Your task to perform on an android device: Open ESPN.com Image 0: 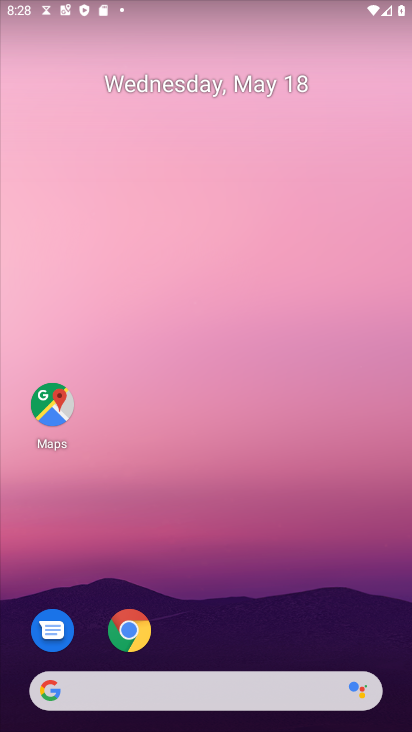
Step 0: press home button
Your task to perform on an android device: Open ESPN.com Image 1: 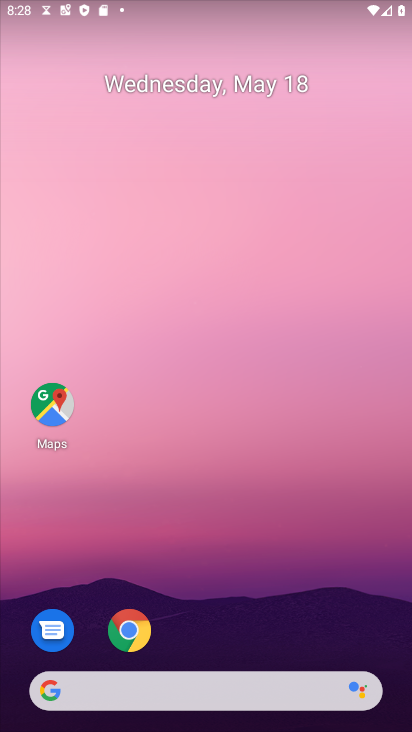
Step 1: click (123, 630)
Your task to perform on an android device: Open ESPN.com Image 2: 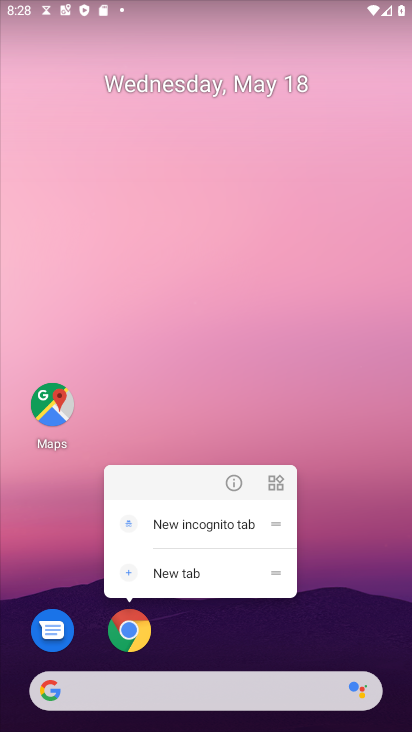
Step 2: click (137, 635)
Your task to perform on an android device: Open ESPN.com Image 3: 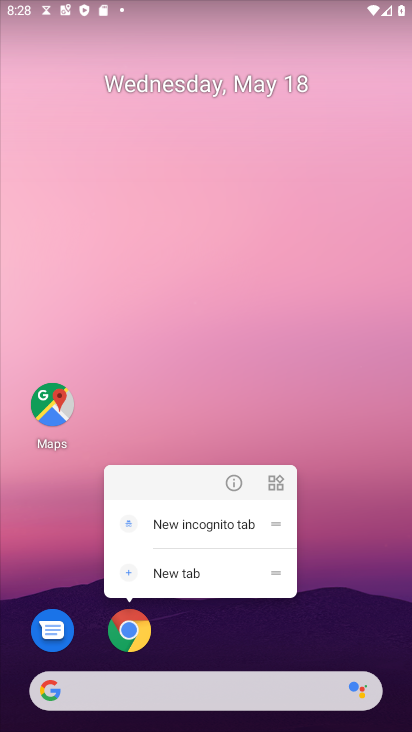
Step 3: click (132, 638)
Your task to perform on an android device: Open ESPN.com Image 4: 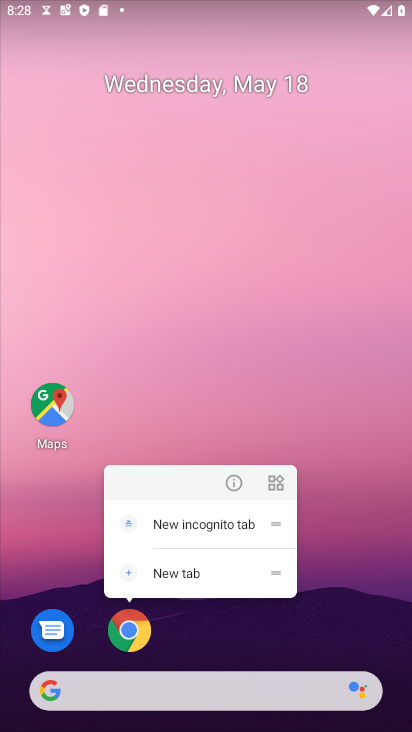
Step 4: click (132, 633)
Your task to perform on an android device: Open ESPN.com Image 5: 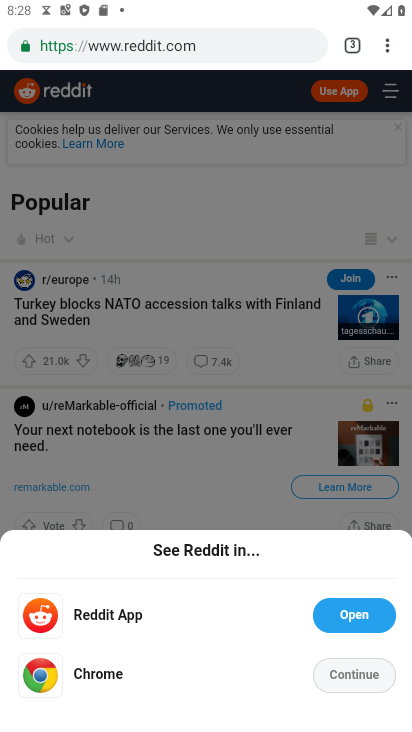
Step 5: drag from (389, 52) to (310, 91)
Your task to perform on an android device: Open ESPN.com Image 6: 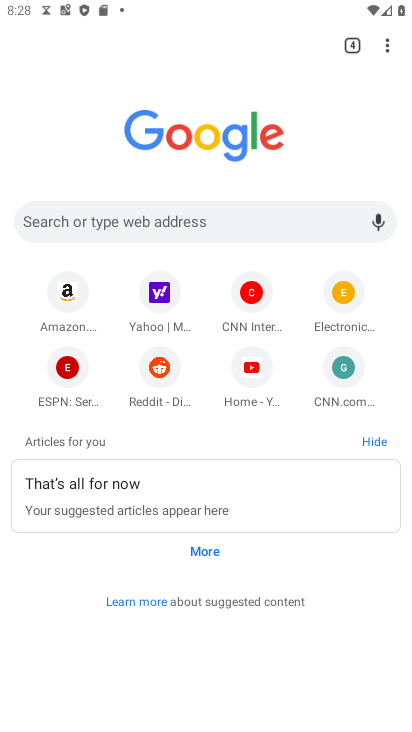
Step 6: click (64, 365)
Your task to perform on an android device: Open ESPN.com Image 7: 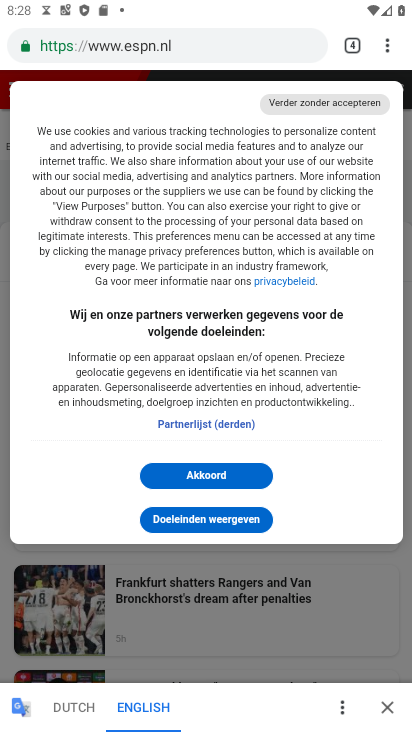
Step 7: click (152, 703)
Your task to perform on an android device: Open ESPN.com Image 8: 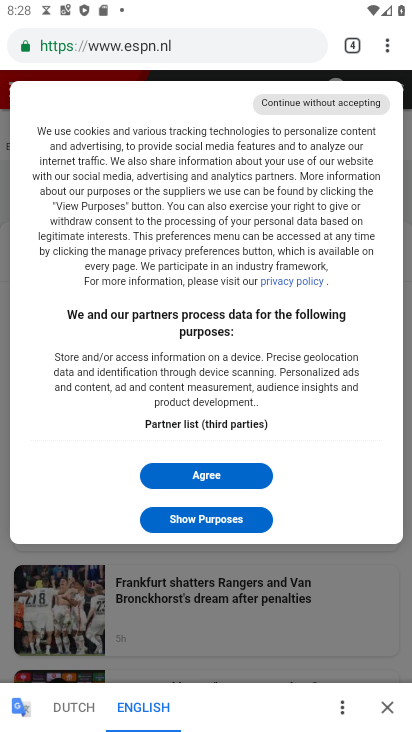
Step 8: click (229, 472)
Your task to perform on an android device: Open ESPN.com Image 9: 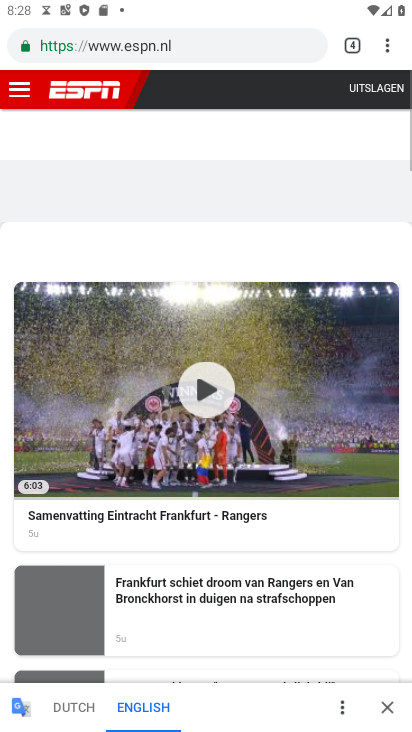
Step 9: task complete